Your task to perform on an android device: uninstall "Google Translate" Image 0: 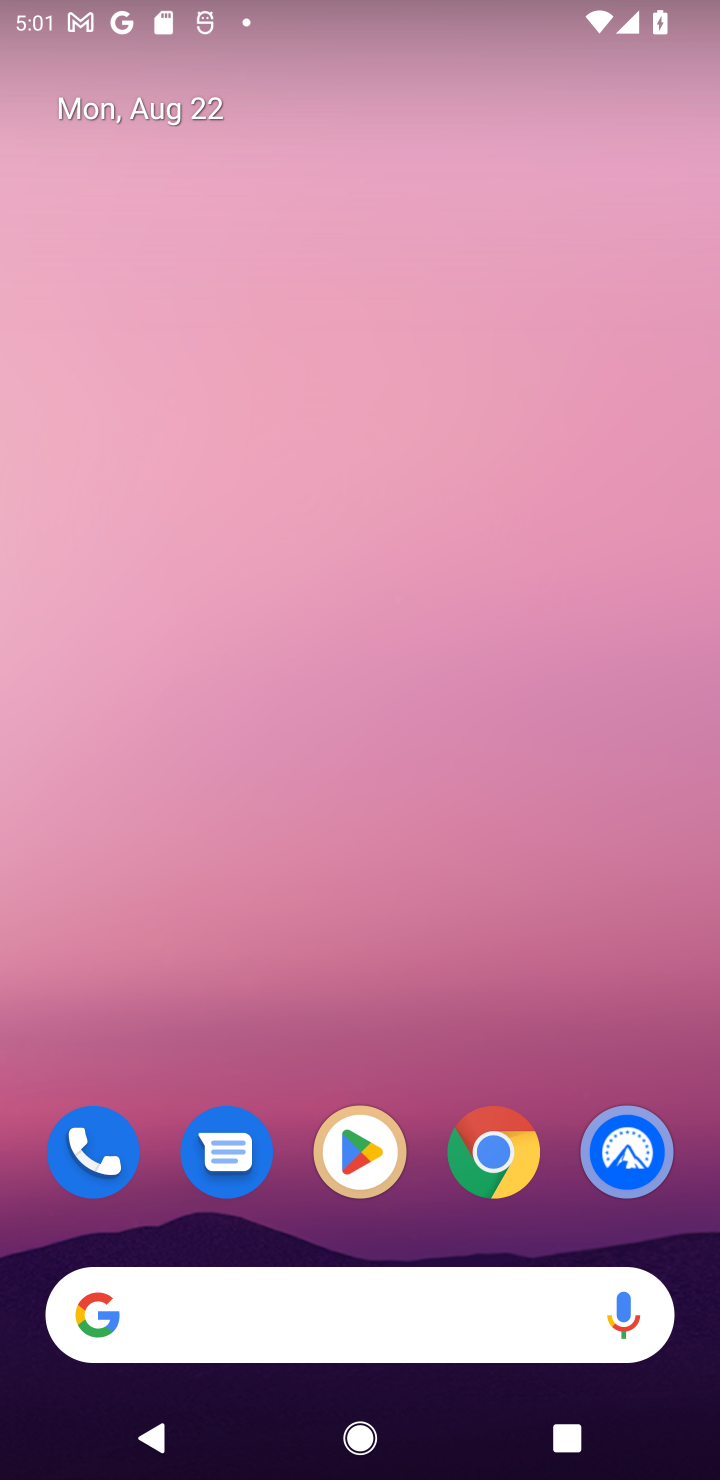
Step 0: click (341, 1126)
Your task to perform on an android device: uninstall "Google Translate" Image 1: 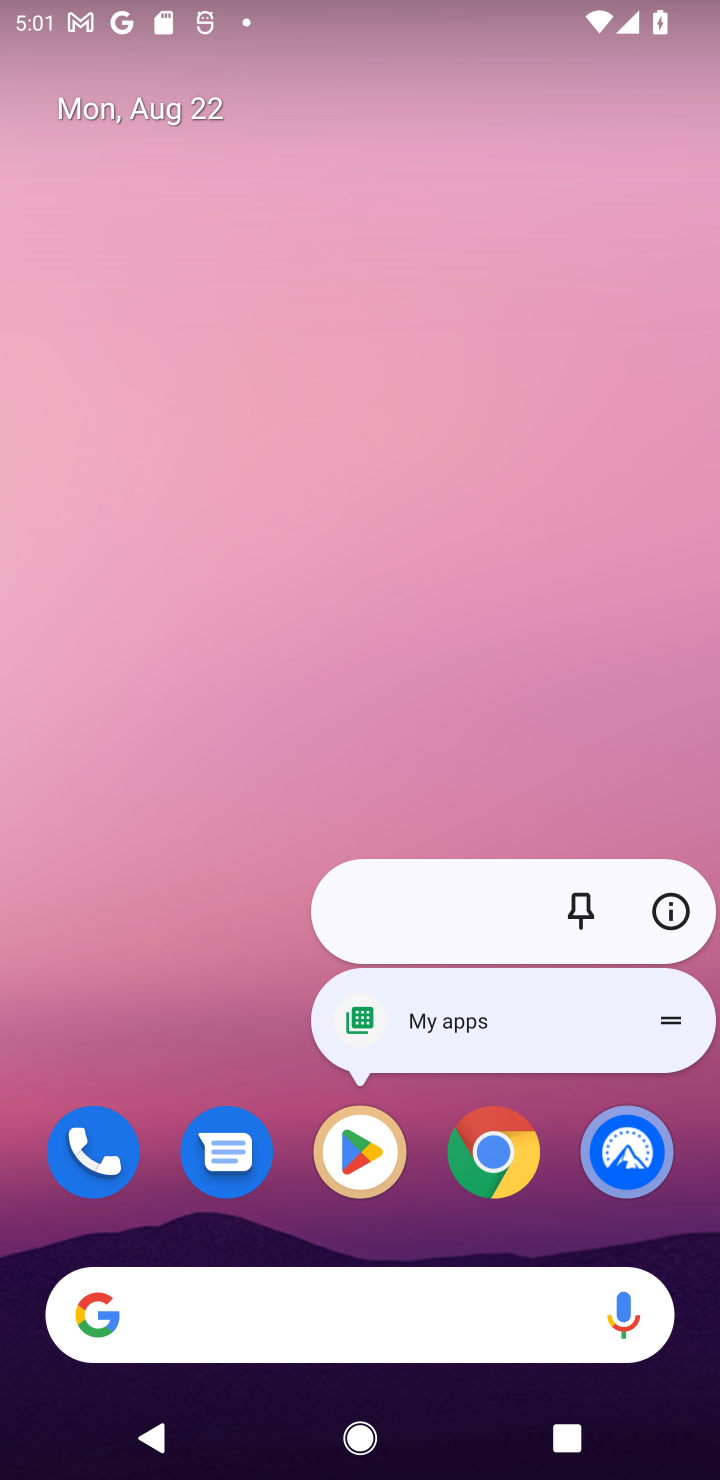
Step 1: click (352, 1179)
Your task to perform on an android device: uninstall "Google Translate" Image 2: 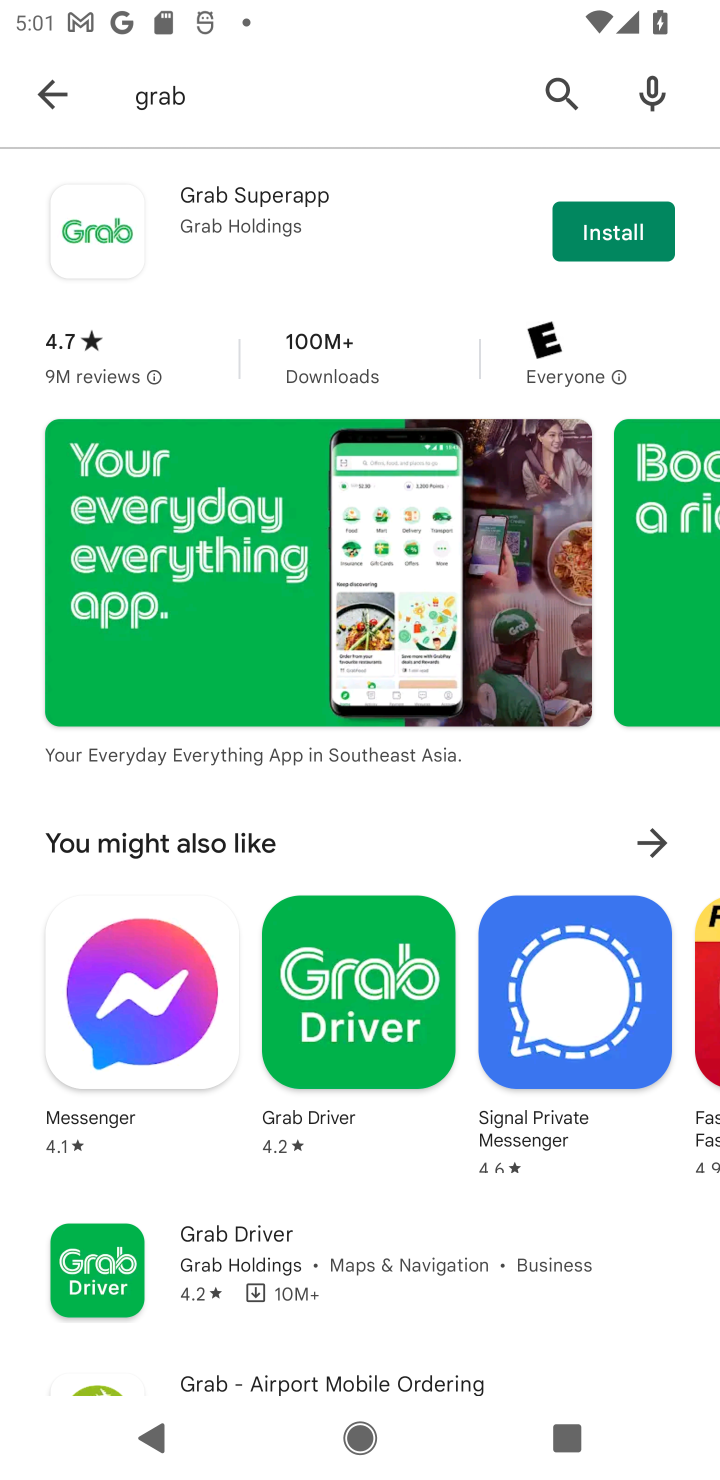
Step 2: click (63, 110)
Your task to perform on an android device: uninstall "Google Translate" Image 3: 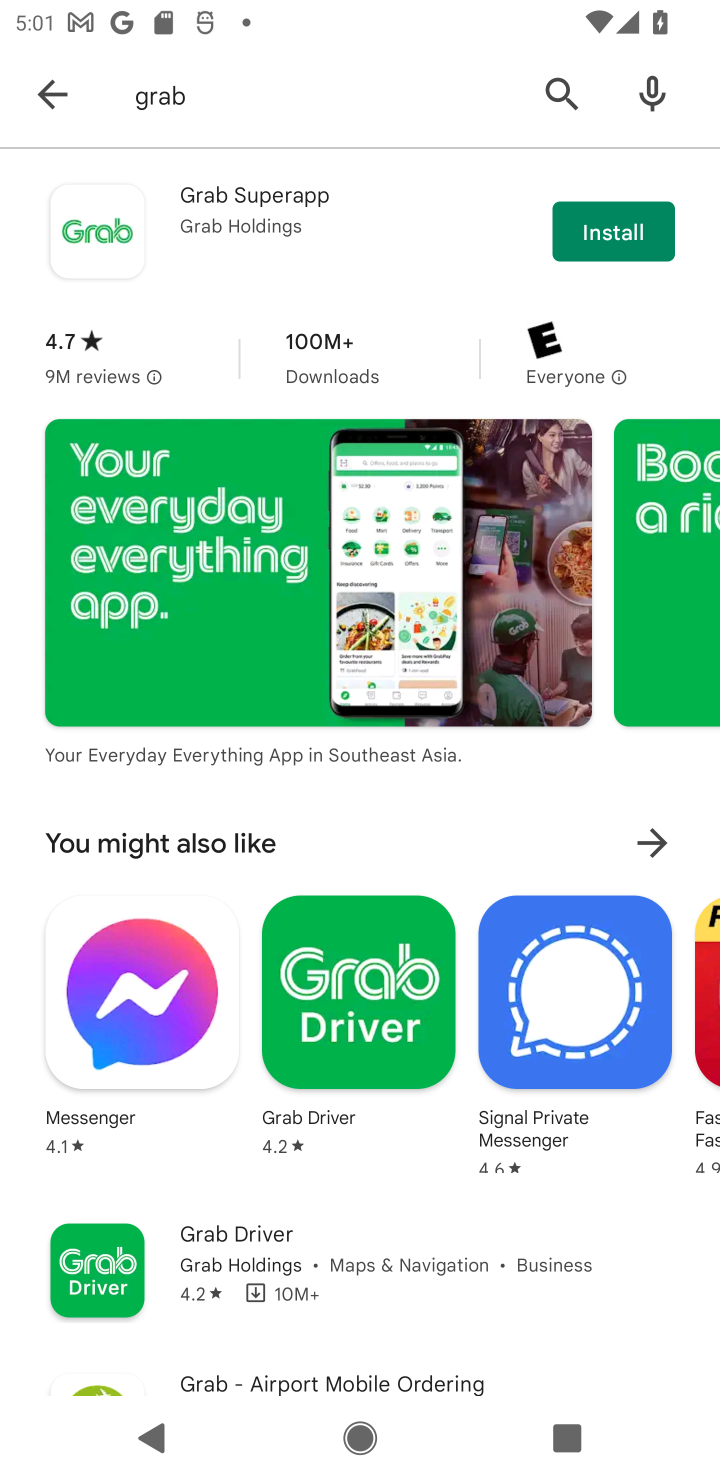
Step 3: click (53, 75)
Your task to perform on an android device: uninstall "Google Translate" Image 4: 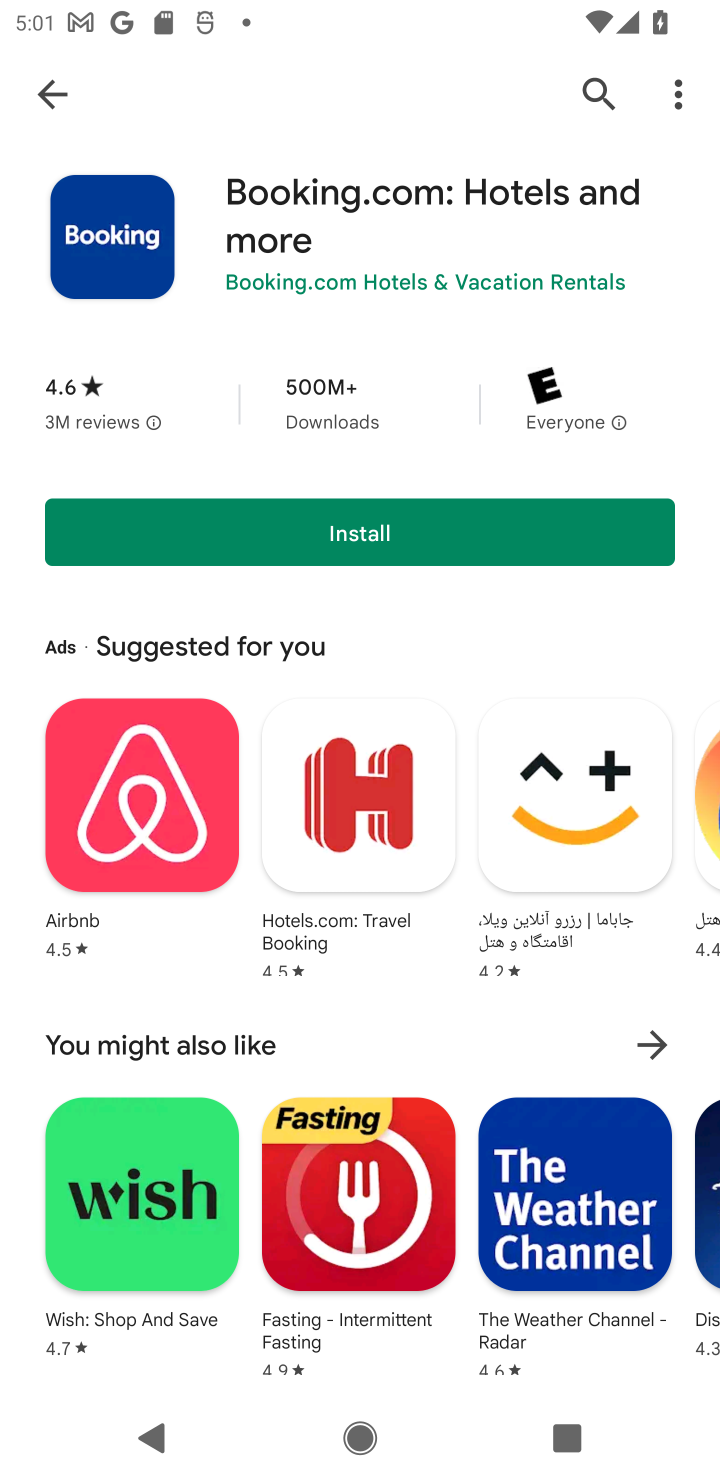
Step 4: click (611, 100)
Your task to perform on an android device: uninstall "Google Translate" Image 5: 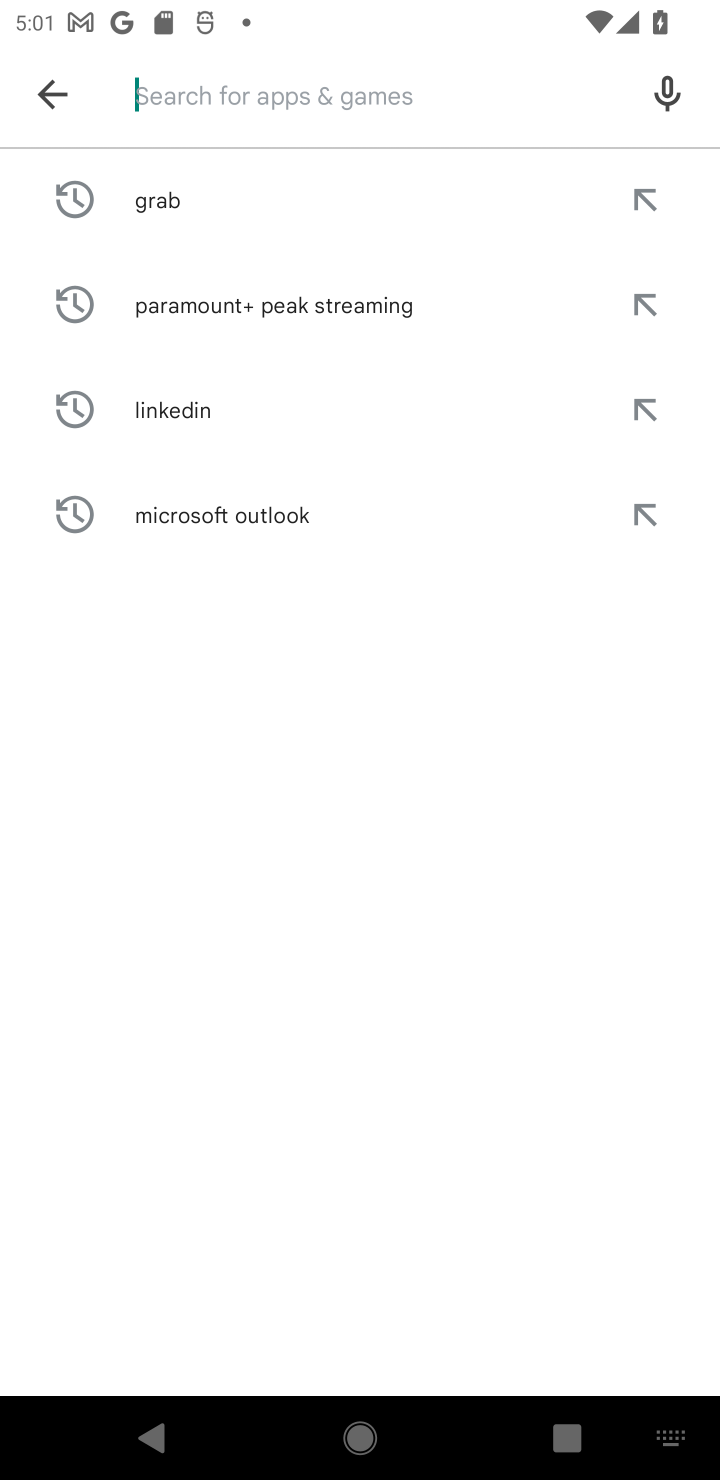
Step 5: type "Google Translate"
Your task to perform on an android device: uninstall "Google Translate" Image 6: 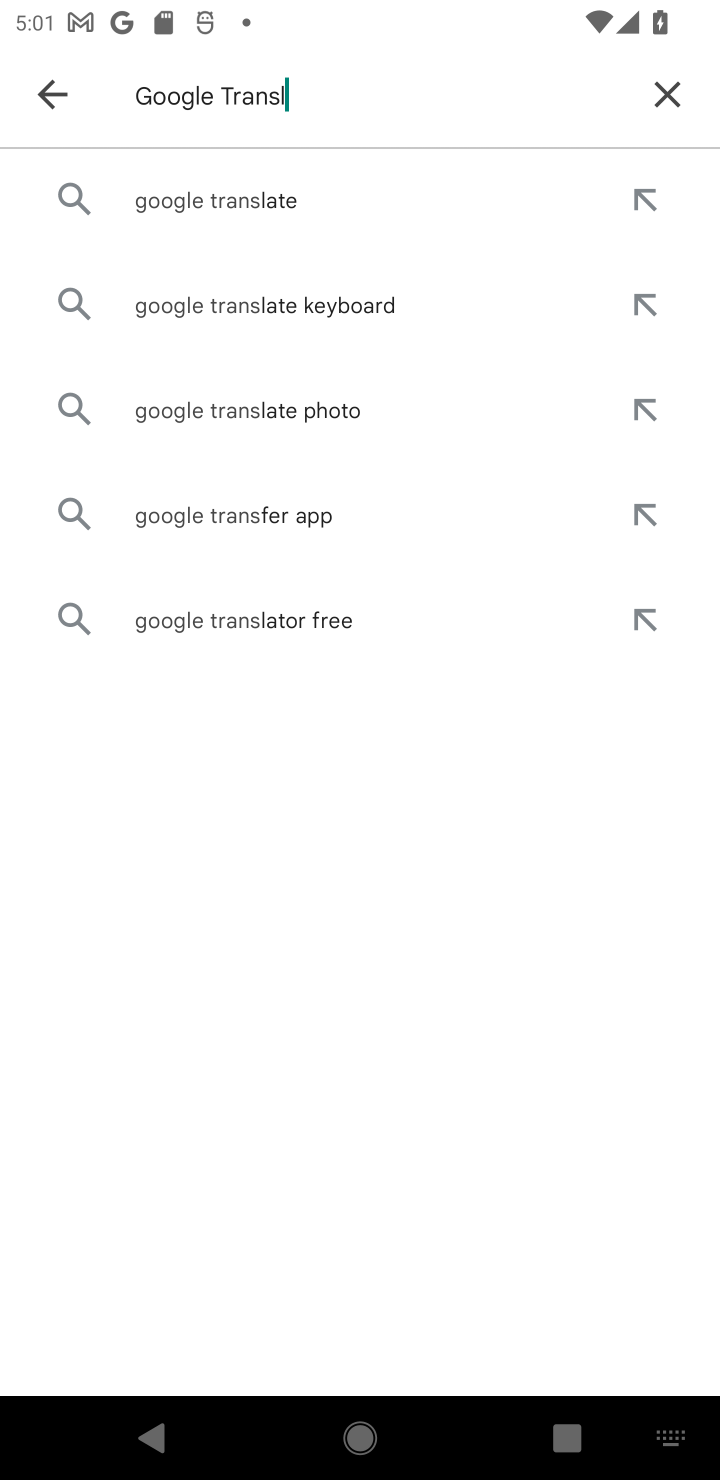
Step 6: type ""
Your task to perform on an android device: uninstall "Google Translate" Image 7: 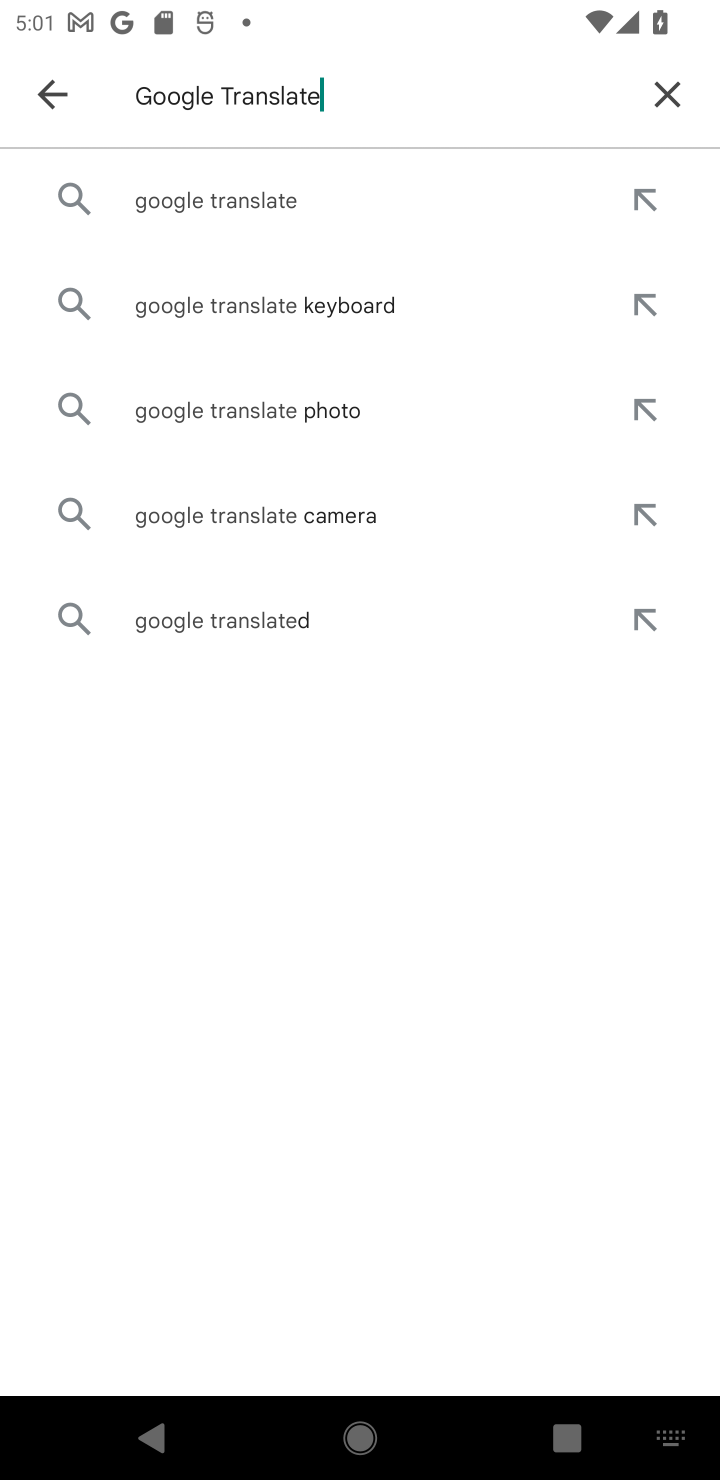
Step 7: click (129, 216)
Your task to perform on an android device: uninstall "Google Translate" Image 8: 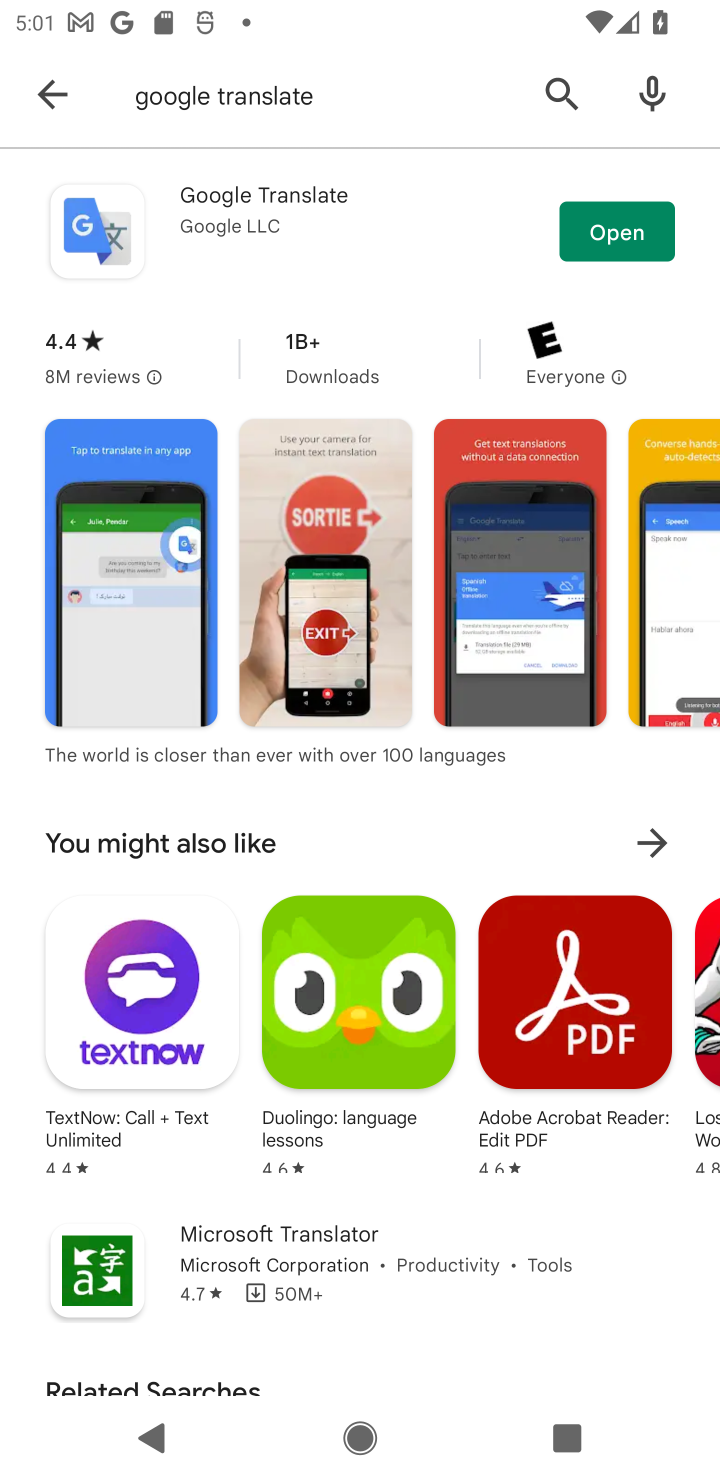
Step 8: click (200, 186)
Your task to perform on an android device: uninstall "Google Translate" Image 9: 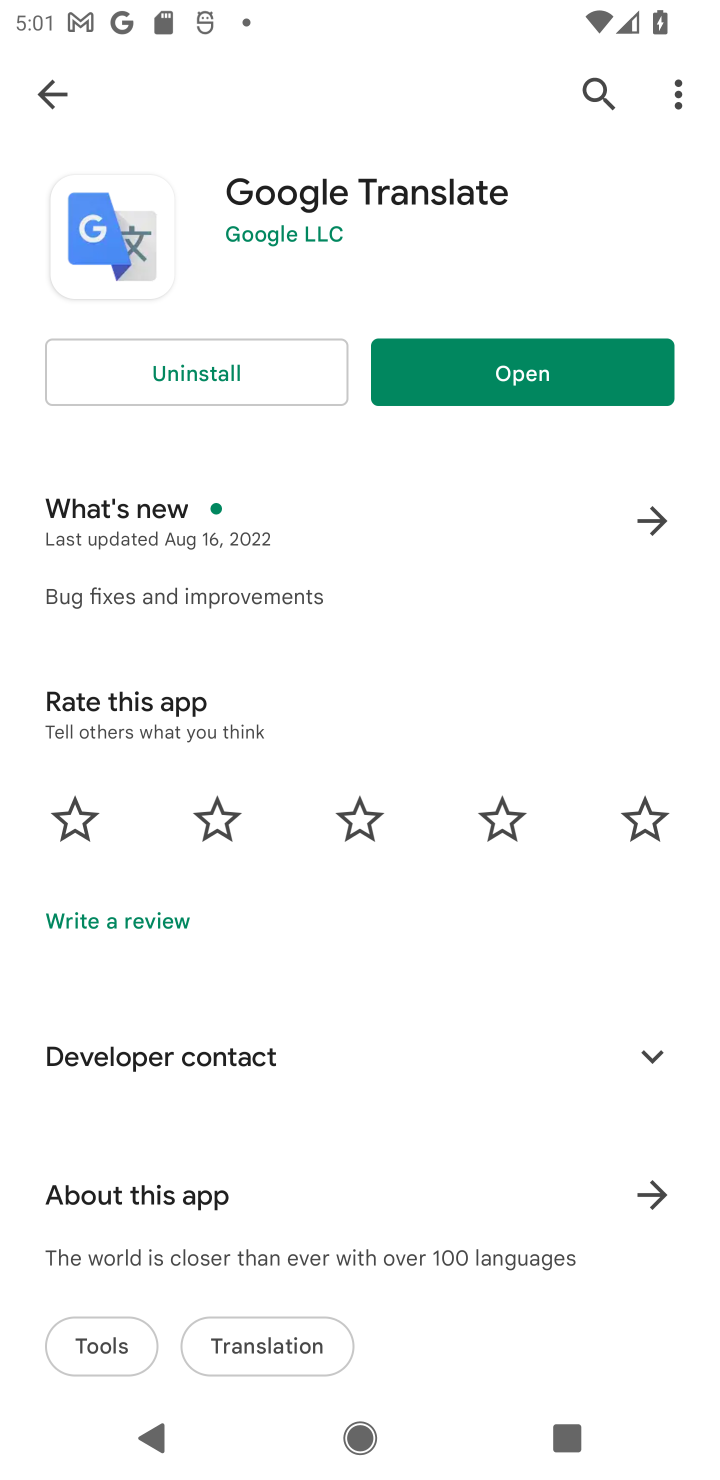
Step 9: click (230, 387)
Your task to perform on an android device: uninstall "Google Translate" Image 10: 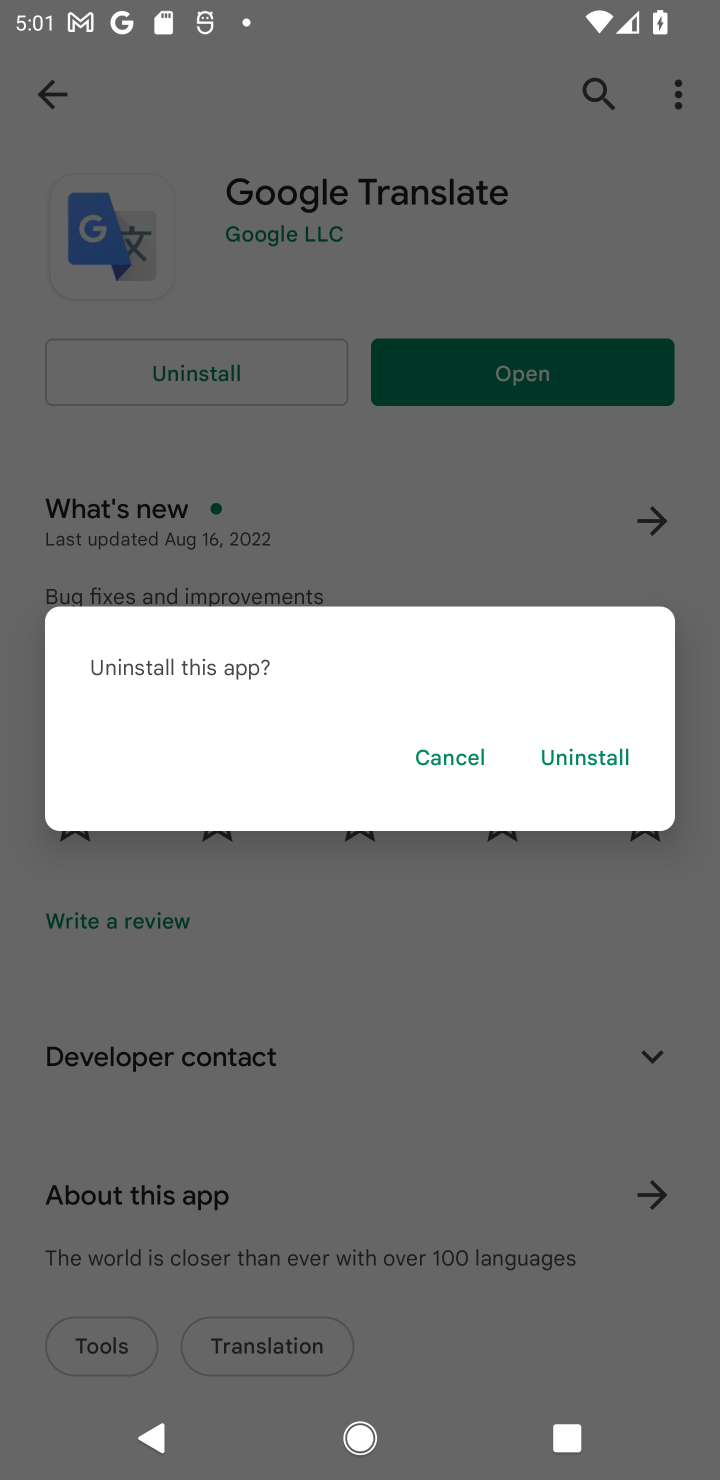
Step 10: click (574, 752)
Your task to perform on an android device: uninstall "Google Translate" Image 11: 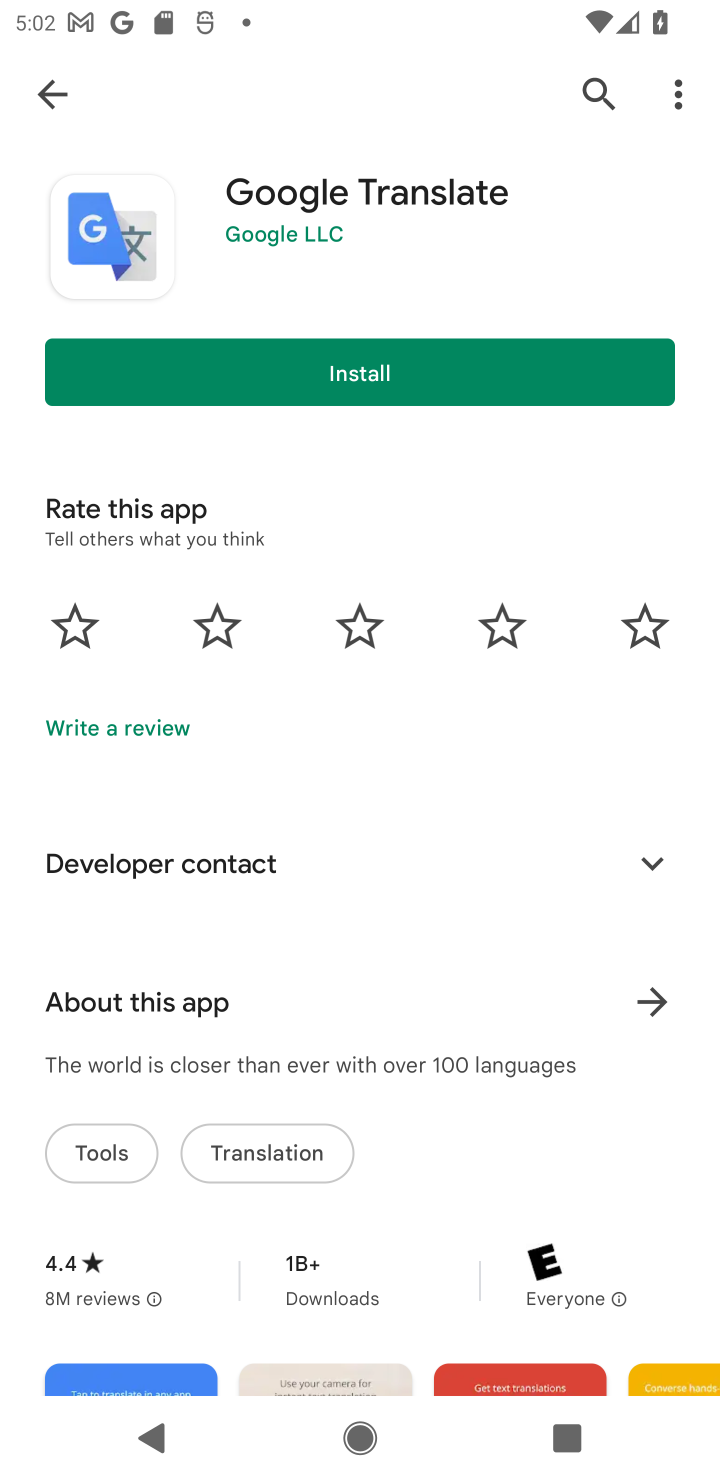
Step 11: task complete